Your task to perform on an android device: Find coffee shops on Maps Image 0: 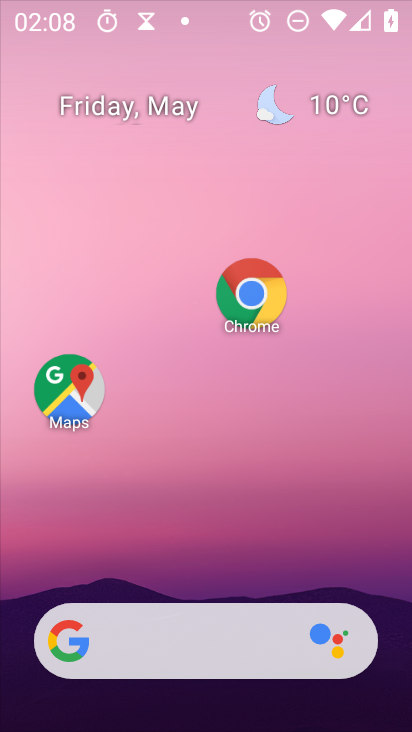
Step 0: press home button
Your task to perform on an android device: Find coffee shops on Maps Image 1: 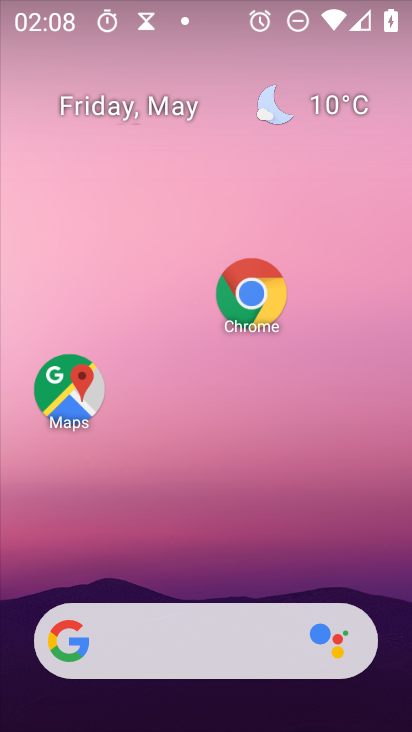
Step 1: drag from (203, 621) to (365, 77)
Your task to perform on an android device: Find coffee shops on Maps Image 2: 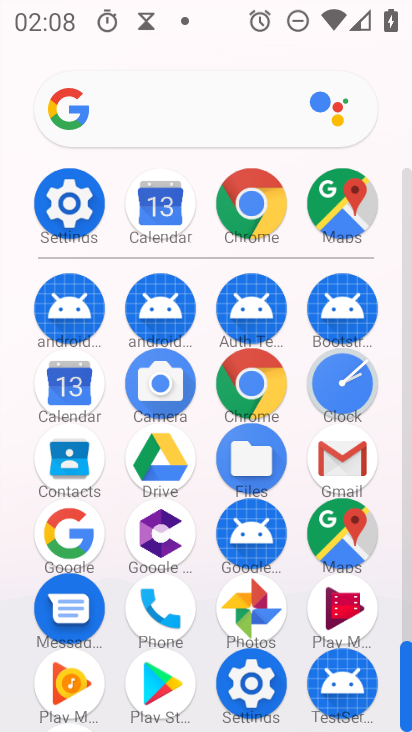
Step 2: click (331, 543)
Your task to perform on an android device: Find coffee shops on Maps Image 3: 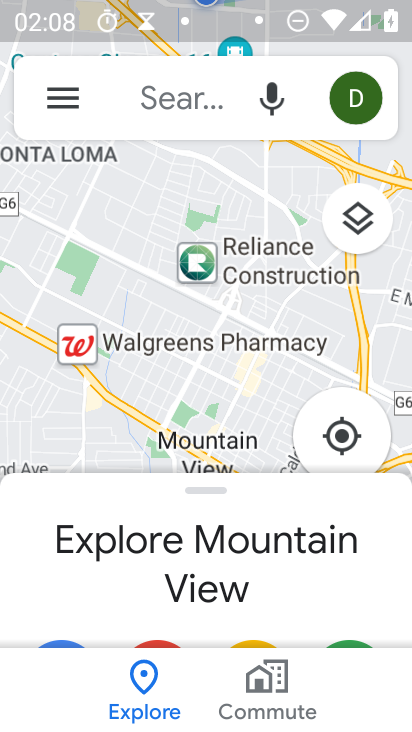
Step 3: click (169, 93)
Your task to perform on an android device: Find coffee shops on Maps Image 4: 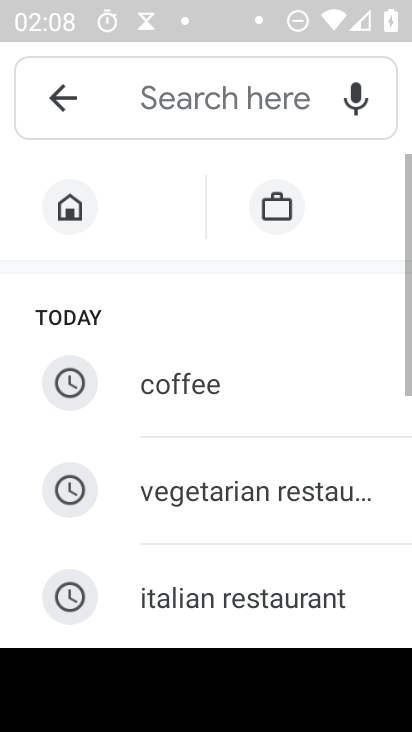
Step 4: click (168, 387)
Your task to perform on an android device: Find coffee shops on Maps Image 5: 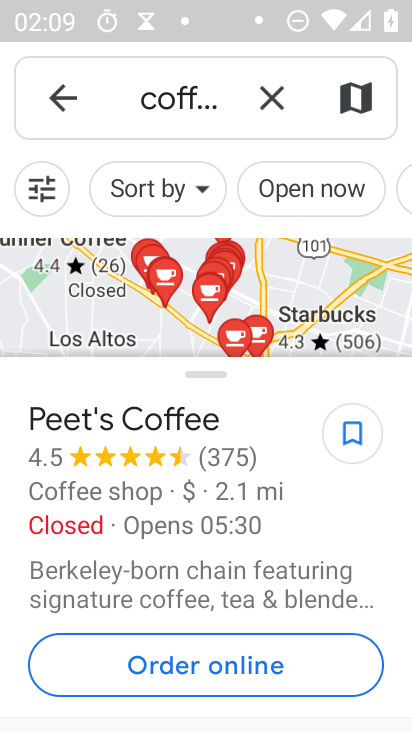
Step 5: task complete